Your task to perform on an android device: Check the news Image 0: 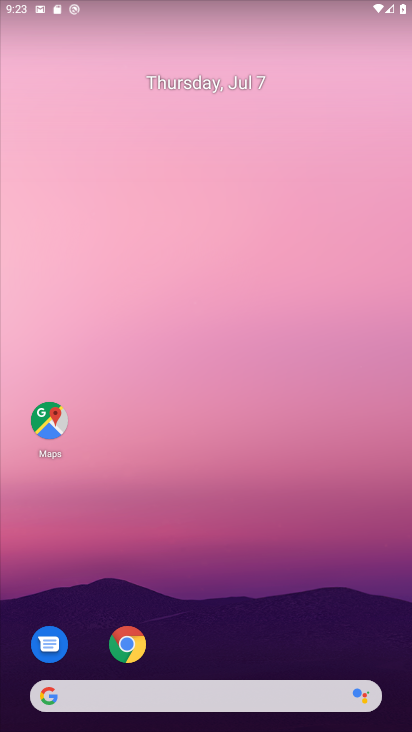
Step 0: drag from (215, 393) to (210, 39)
Your task to perform on an android device: Check the news Image 1: 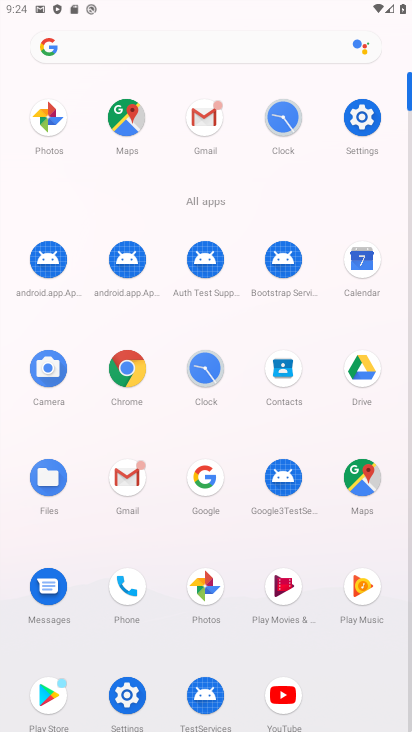
Step 1: click (203, 492)
Your task to perform on an android device: Check the news Image 2: 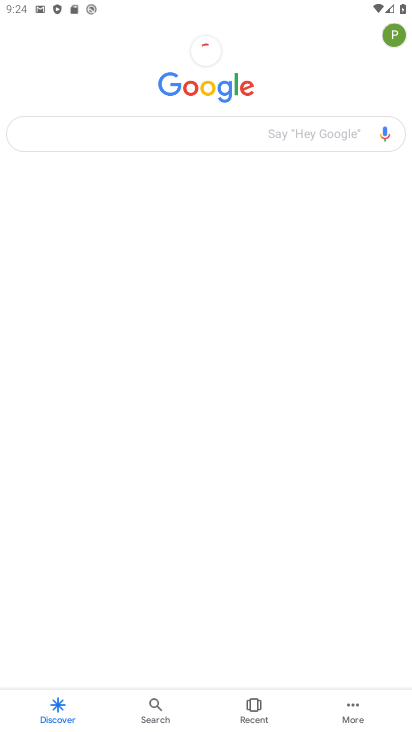
Step 2: click (132, 131)
Your task to perform on an android device: Check the news Image 3: 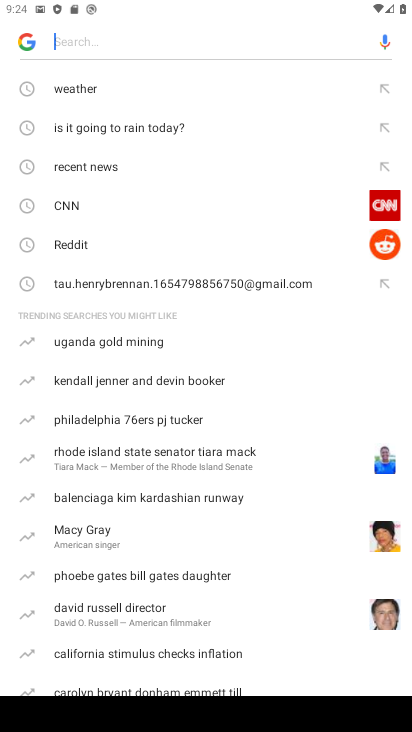
Step 3: type "news"
Your task to perform on an android device: Check the news Image 4: 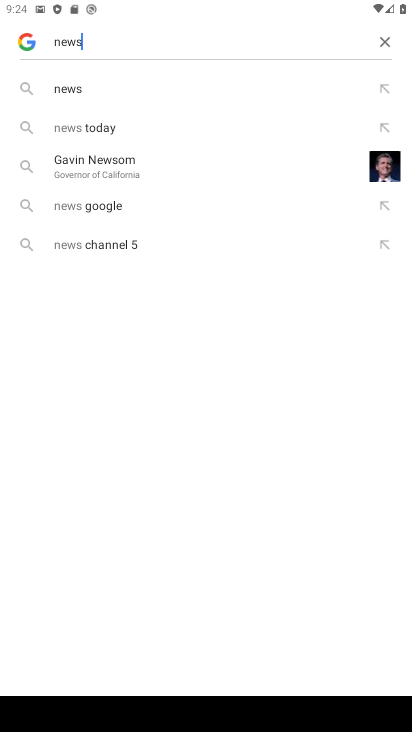
Step 4: click (69, 83)
Your task to perform on an android device: Check the news Image 5: 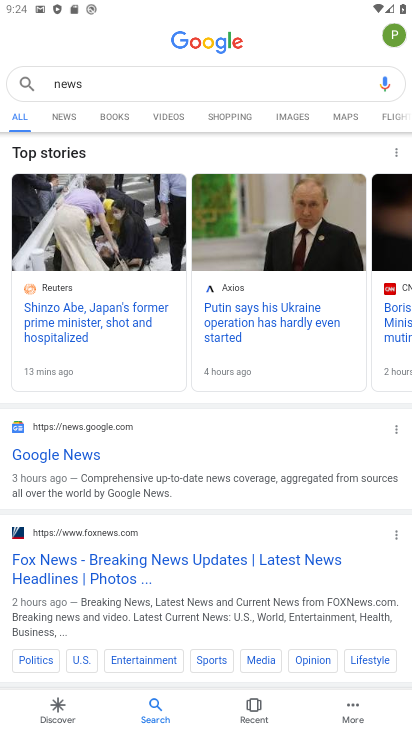
Step 5: task complete